Your task to perform on an android device: Open Reddit.com Image 0: 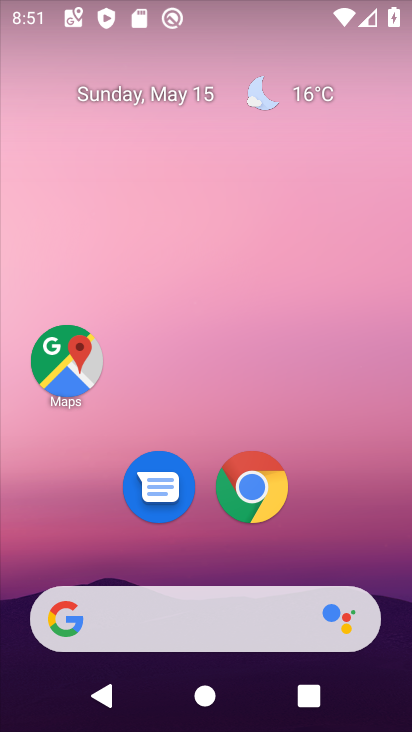
Step 0: click (251, 488)
Your task to perform on an android device: Open Reddit.com Image 1: 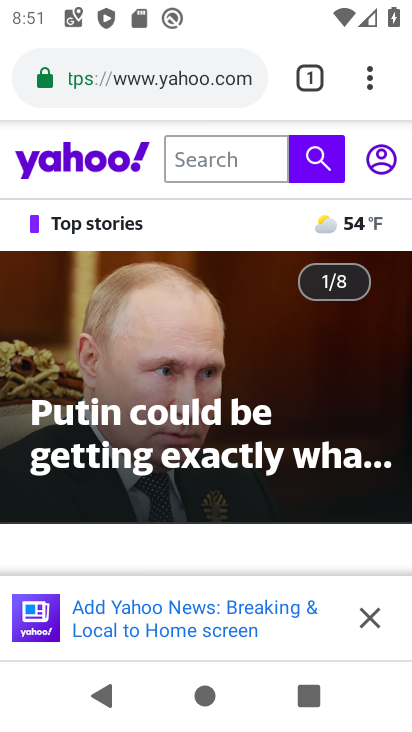
Step 1: click (178, 74)
Your task to perform on an android device: Open Reddit.com Image 2: 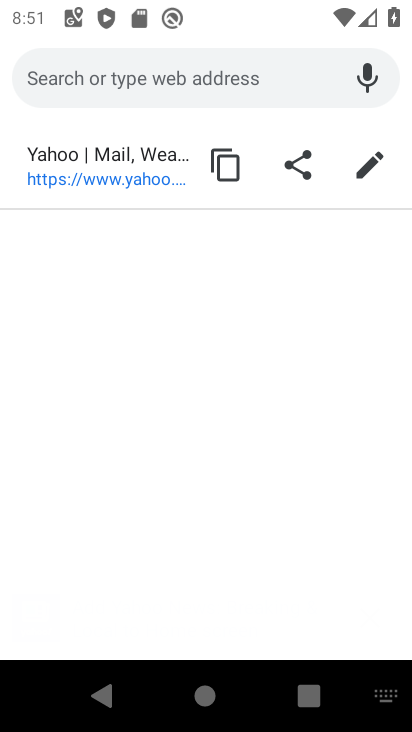
Step 2: type "reddit.com"
Your task to perform on an android device: Open Reddit.com Image 3: 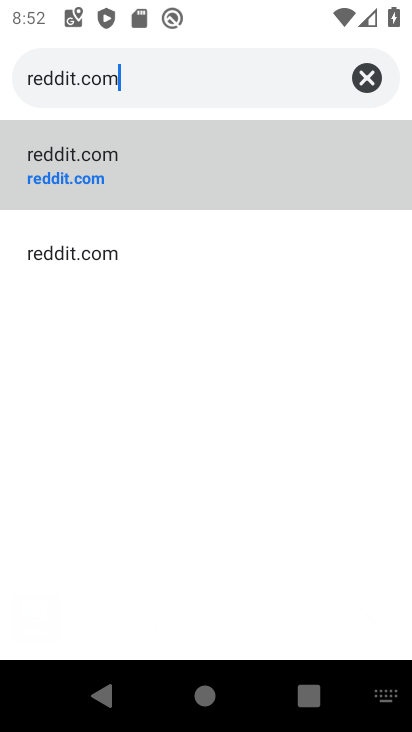
Step 3: click (65, 164)
Your task to perform on an android device: Open Reddit.com Image 4: 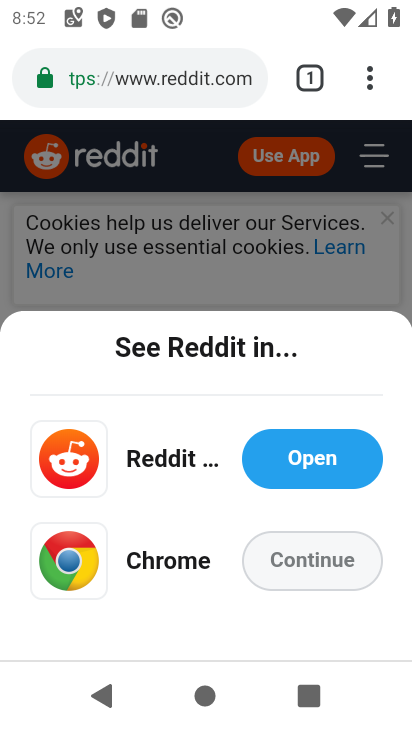
Step 4: task complete